Your task to perform on an android device: toggle wifi Image 0: 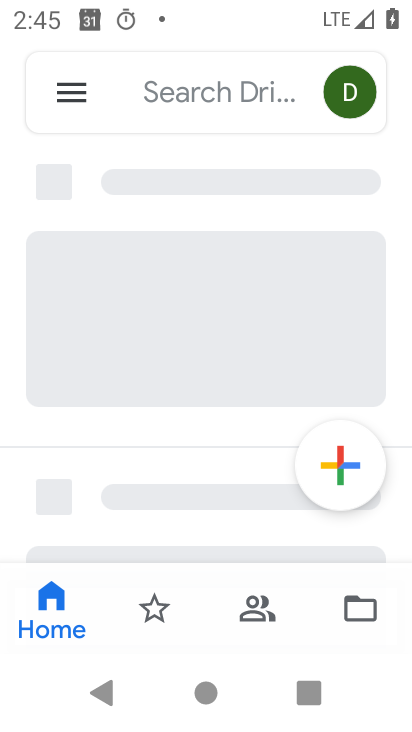
Step 0: press home button
Your task to perform on an android device: toggle wifi Image 1: 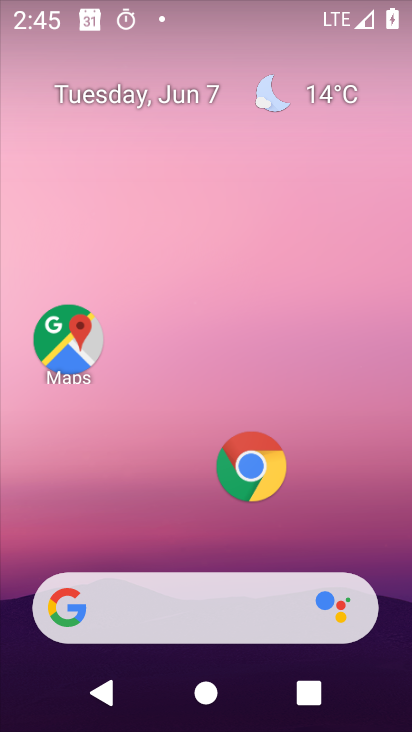
Step 1: drag from (189, 11) to (217, 487)
Your task to perform on an android device: toggle wifi Image 2: 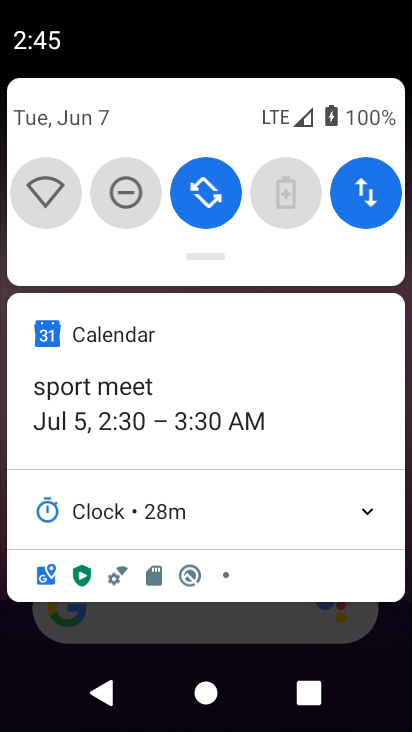
Step 2: click (54, 193)
Your task to perform on an android device: toggle wifi Image 3: 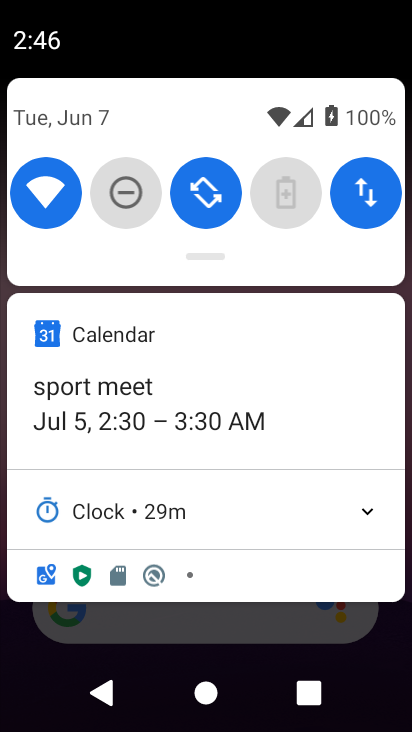
Step 3: task complete